Your task to perform on an android device: Open Google Maps and go to "Timeline" Image 0: 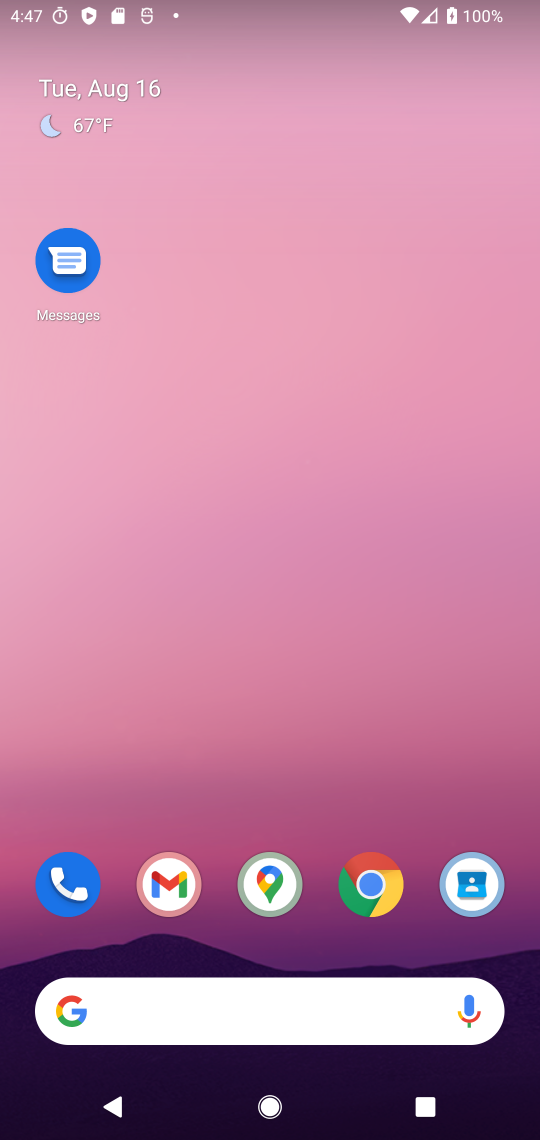
Step 0: click (279, 893)
Your task to perform on an android device: Open Google Maps and go to "Timeline" Image 1: 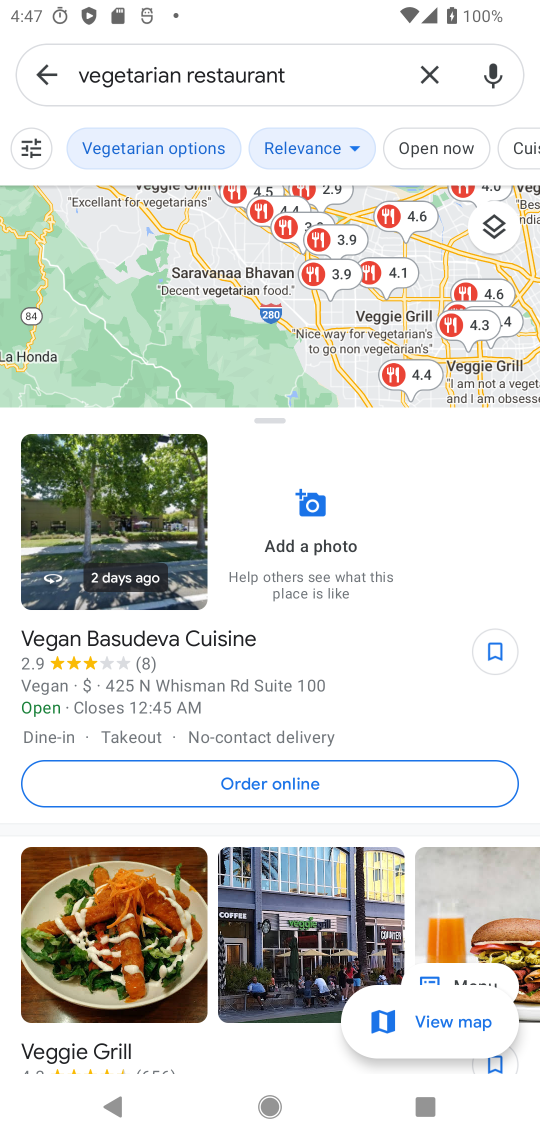
Step 1: click (56, 84)
Your task to perform on an android device: Open Google Maps and go to "Timeline" Image 2: 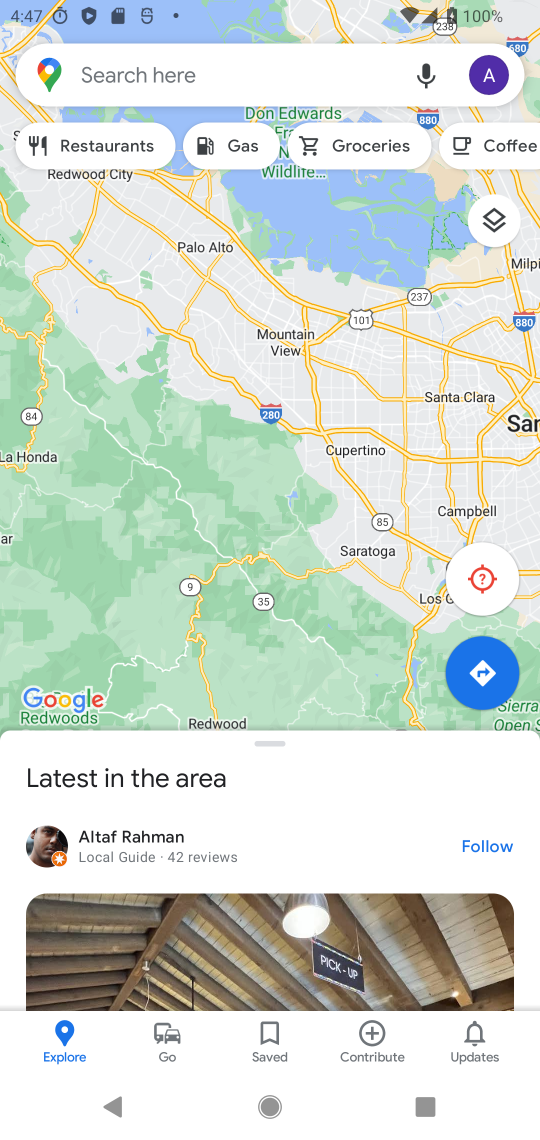
Step 2: click (210, 71)
Your task to perform on an android device: Open Google Maps and go to "Timeline" Image 3: 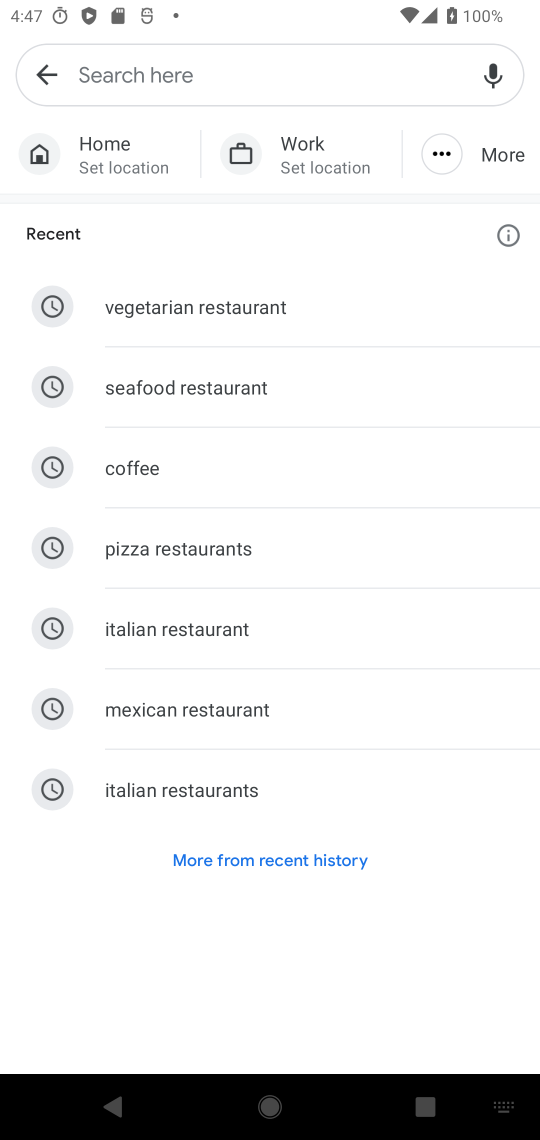
Step 3: task complete